Your task to perform on an android device: turn off data saver in the chrome app Image 0: 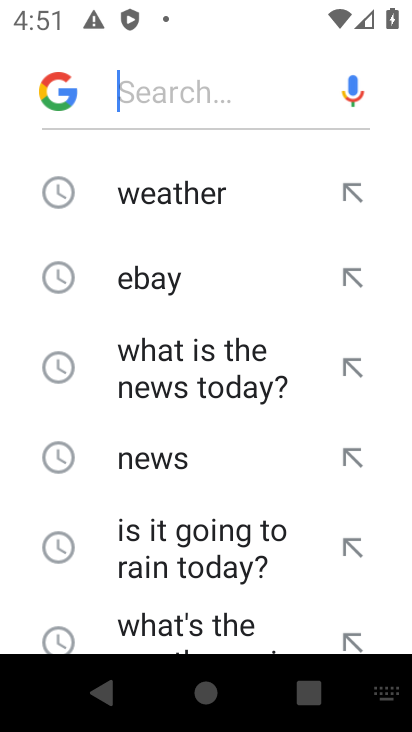
Step 0: press home button
Your task to perform on an android device: turn off data saver in the chrome app Image 1: 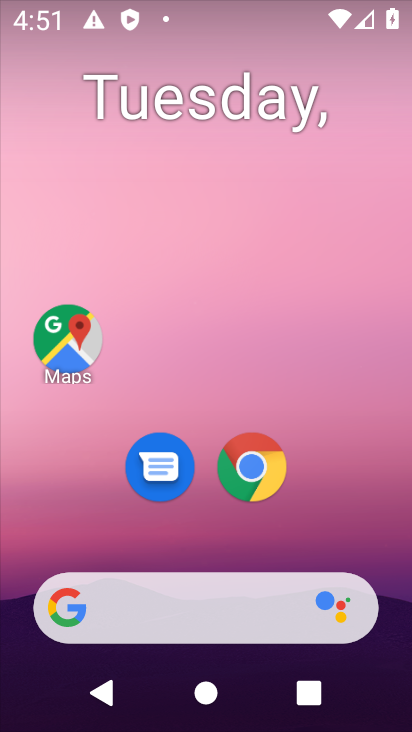
Step 1: drag from (315, 599) to (138, 8)
Your task to perform on an android device: turn off data saver in the chrome app Image 2: 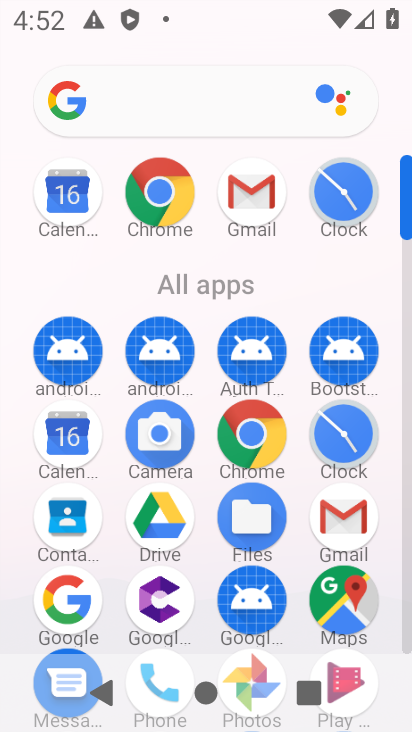
Step 2: click (156, 201)
Your task to perform on an android device: turn off data saver in the chrome app Image 3: 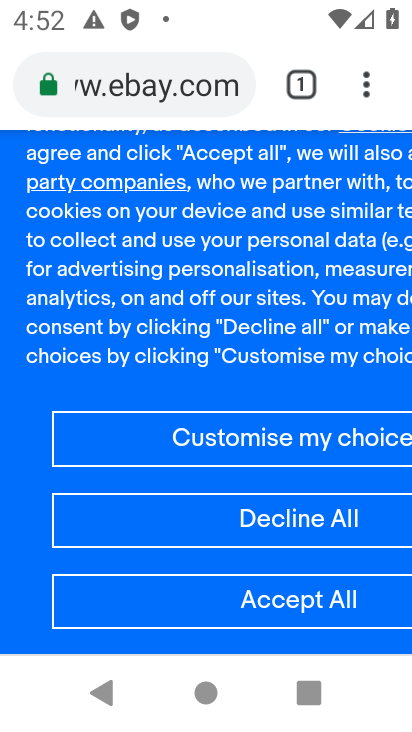
Step 3: drag from (354, 76) to (176, 525)
Your task to perform on an android device: turn off data saver in the chrome app Image 4: 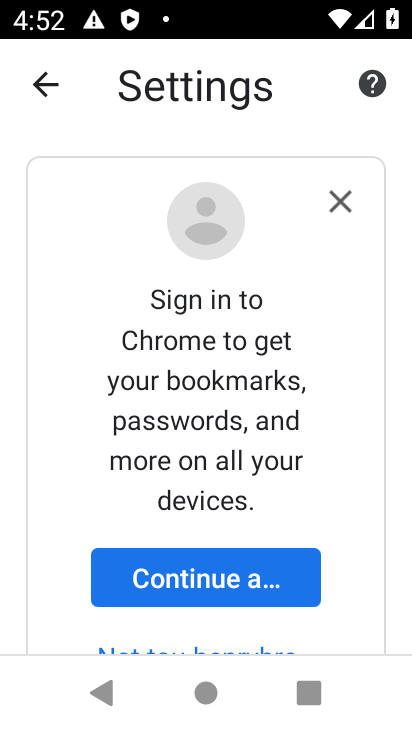
Step 4: drag from (257, 598) to (221, 185)
Your task to perform on an android device: turn off data saver in the chrome app Image 5: 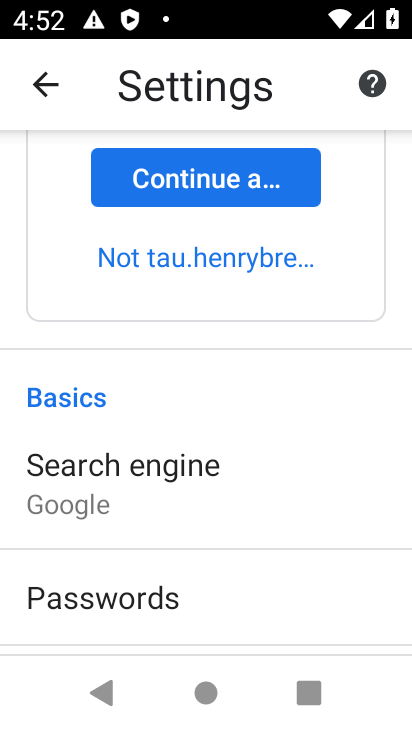
Step 5: drag from (264, 581) to (205, 72)
Your task to perform on an android device: turn off data saver in the chrome app Image 6: 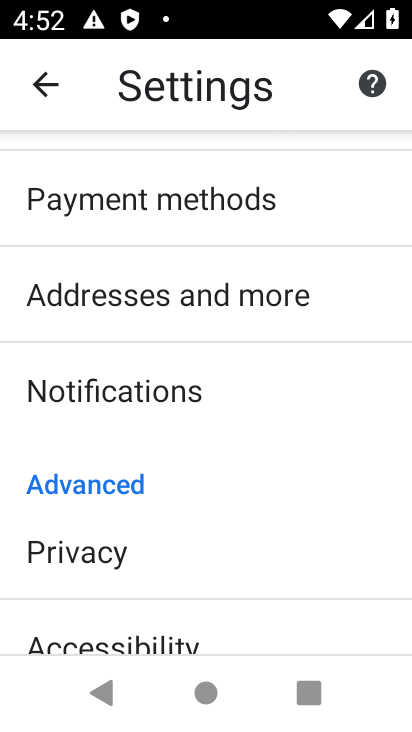
Step 6: drag from (220, 541) to (216, 68)
Your task to perform on an android device: turn off data saver in the chrome app Image 7: 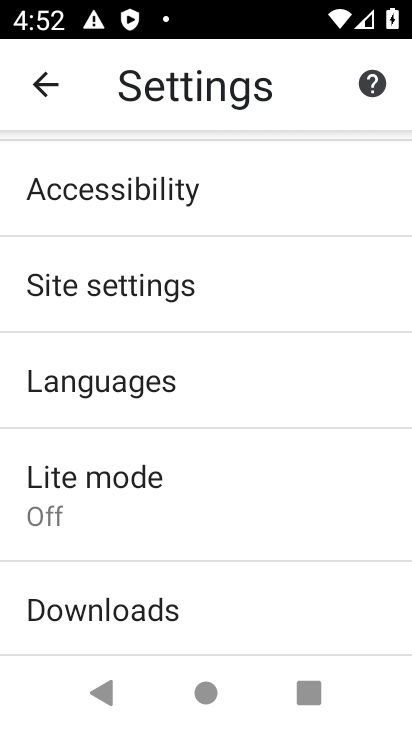
Step 7: drag from (149, 518) to (91, 234)
Your task to perform on an android device: turn off data saver in the chrome app Image 8: 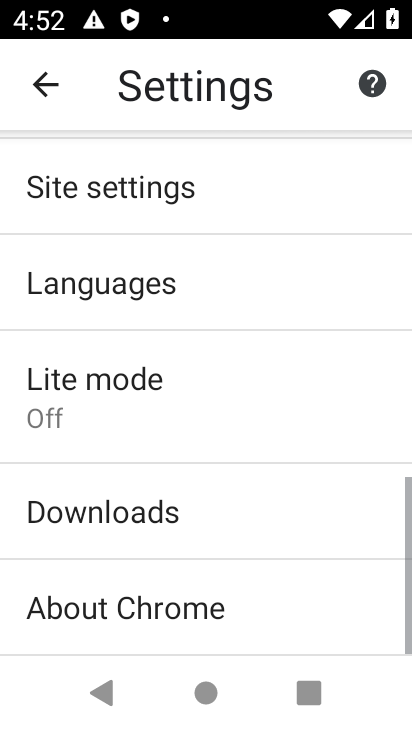
Step 8: click (111, 376)
Your task to perform on an android device: turn off data saver in the chrome app Image 9: 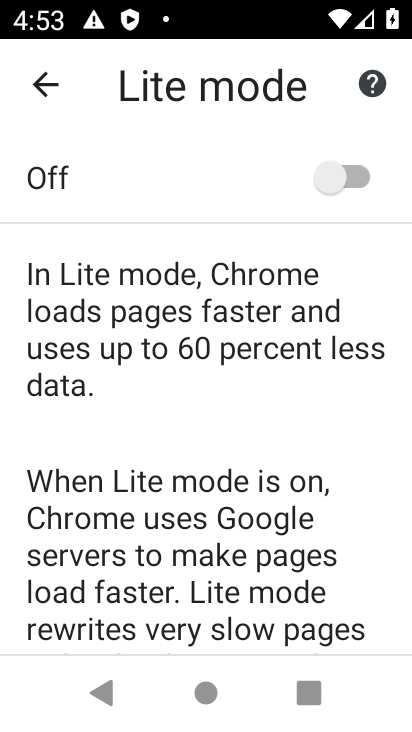
Step 9: task complete